Your task to perform on an android device: delete the emails in spam in the gmail app Image 0: 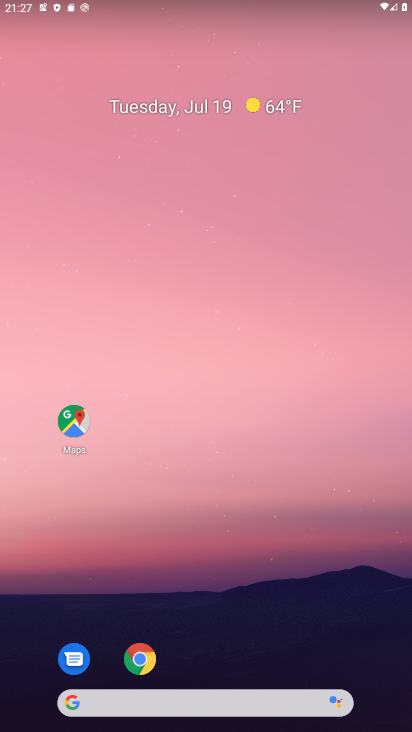
Step 0: drag from (221, 657) to (224, 14)
Your task to perform on an android device: delete the emails in spam in the gmail app Image 1: 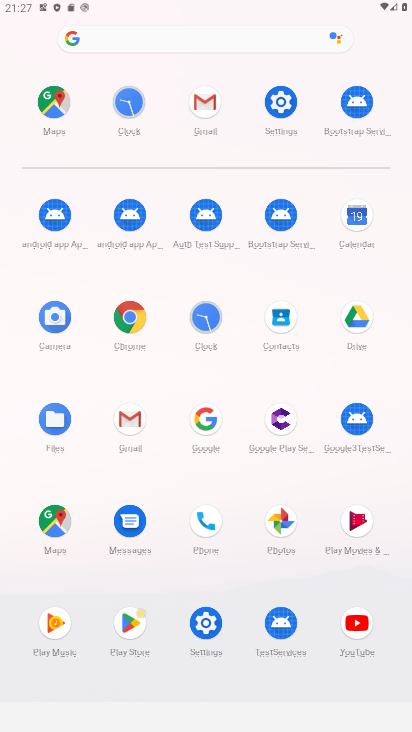
Step 1: click (206, 120)
Your task to perform on an android device: delete the emails in spam in the gmail app Image 2: 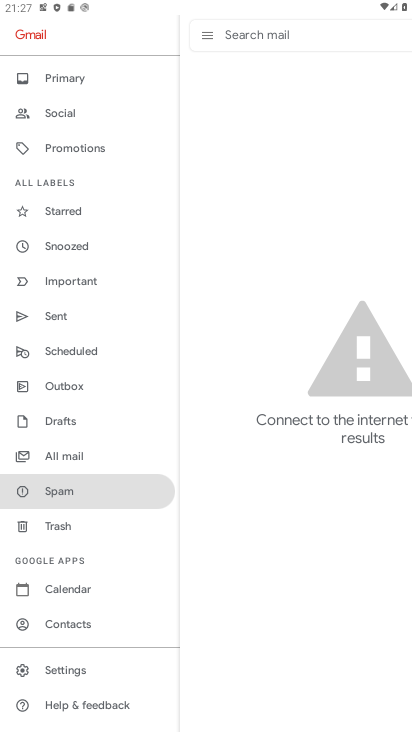
Step 2: click (329, 241)
Your task to perform on an android device: delete the emails in spam in the gmail app Image 3: 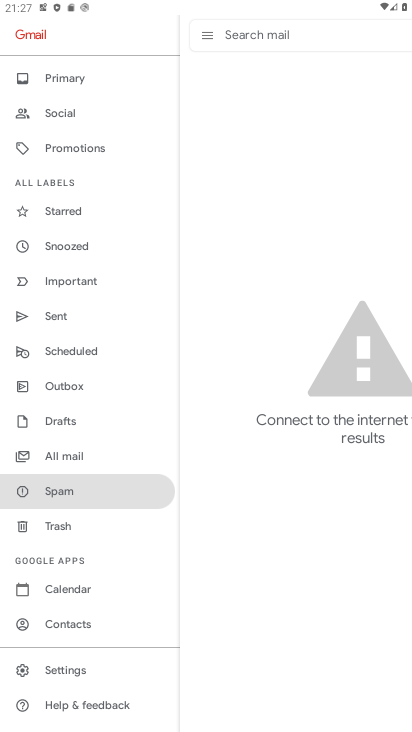
Step 3: click (99, 498)
Your task to perform on an android device: delete the emails in spam in the gmail app Image 4: 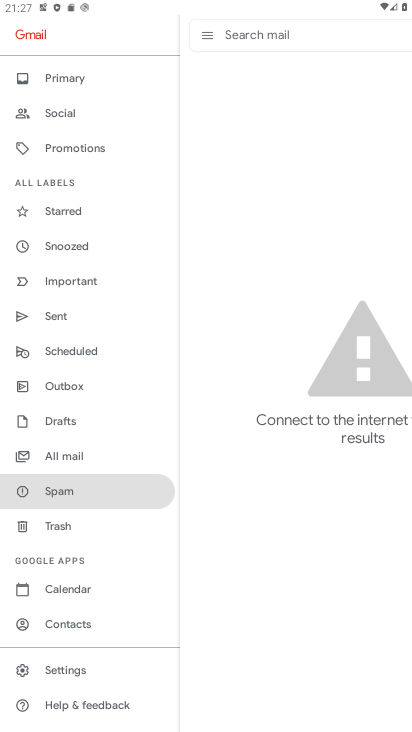
Step 4: task complete